Your task to perform on an android device: Go to privacy settings Image 0: 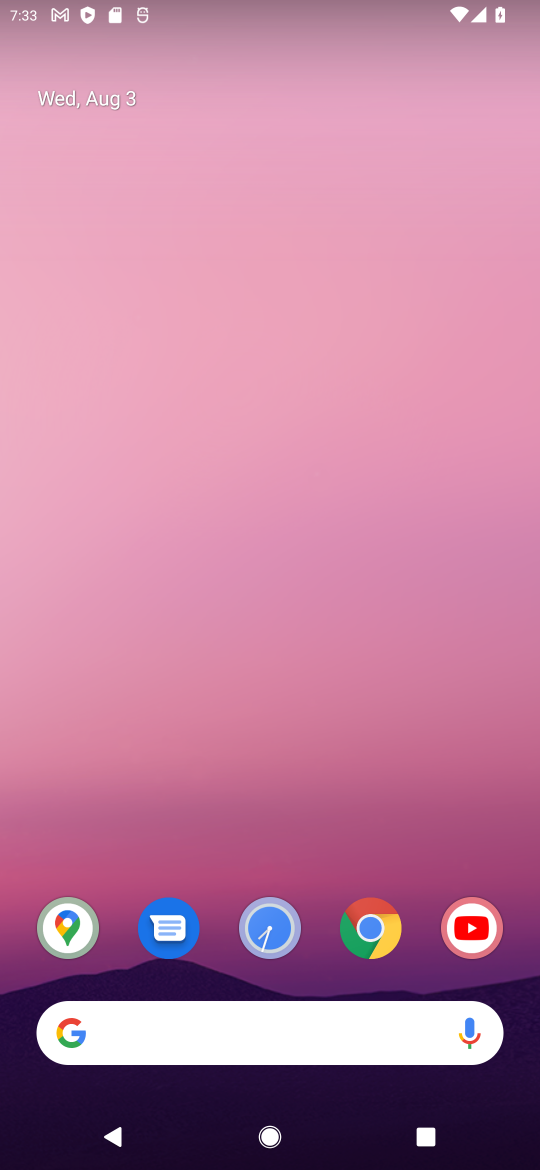
Step 0: drag from (394, 874) to (241, 286)
Your task to perform on an android device: Go to privacy settings Image 1: 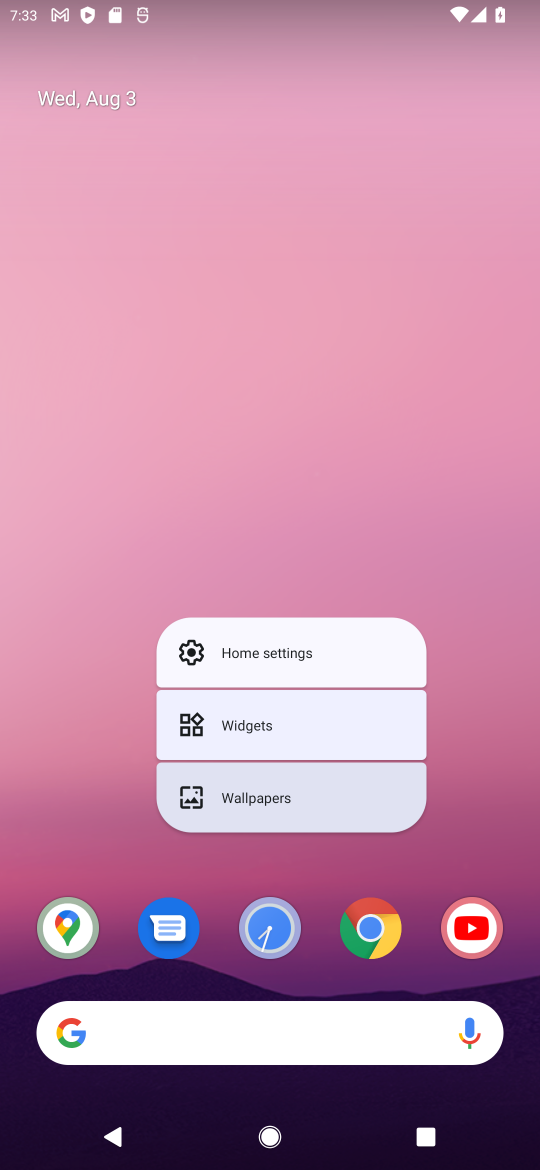
Step 1: drag from (501, 872) to (281, 141)
Your task to perform on an android device: Go to privacy settings Image 2: 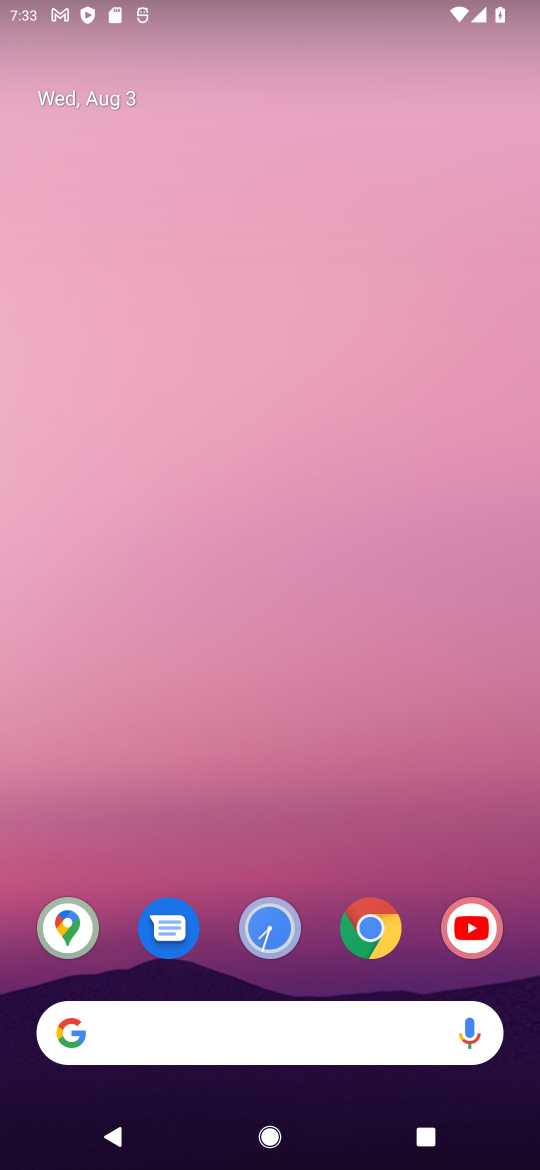
Step 2: drag from (432, 944) to (303, 199)
Your task to perform on an android device: Go to privacy settings Image 3: 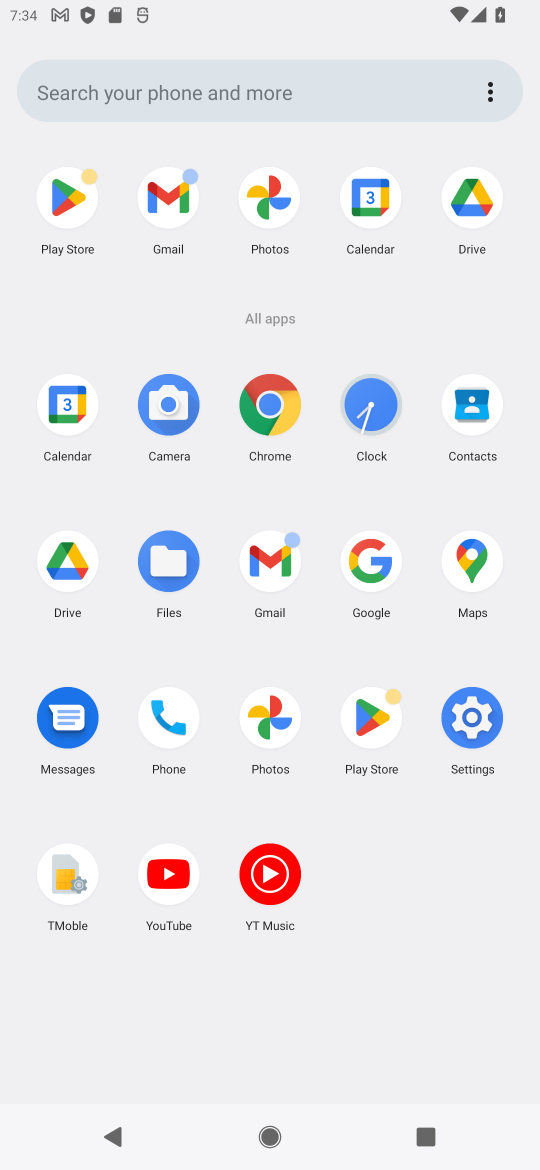
Step 3: click (481, 717)
Your task to perform on an android device: Go to privacy settings Image 4: 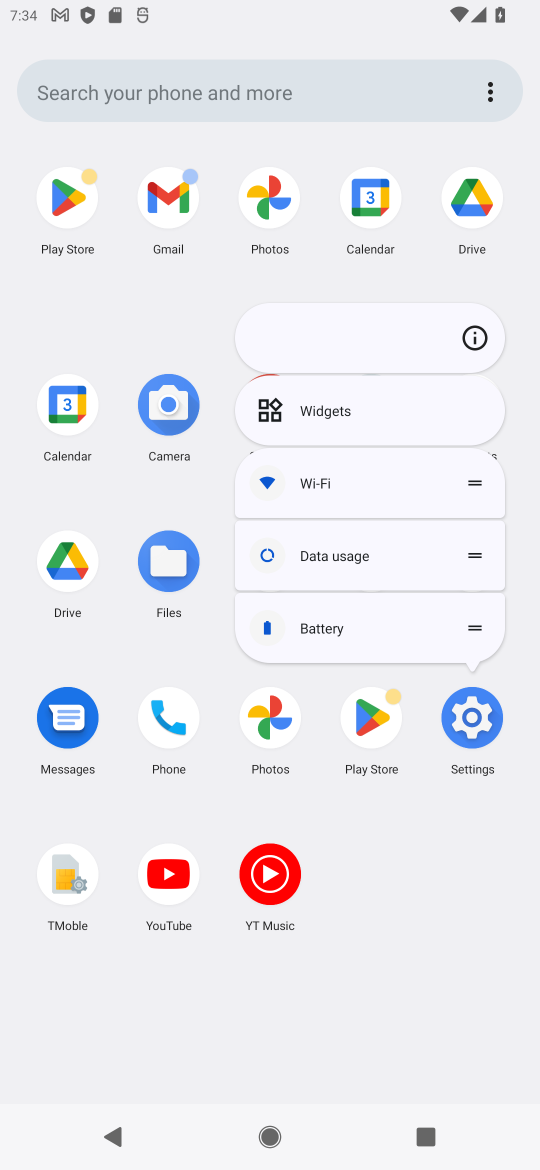
Step 4: click (477, 731)
Your task to perform on an android device: Go to privacy settings Image 5: 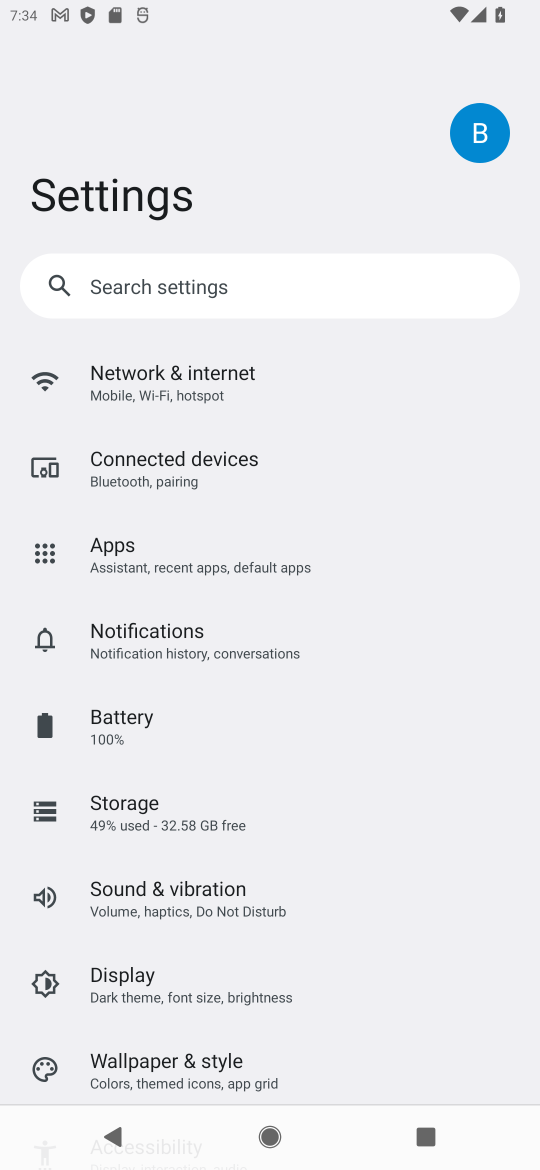
Step 5: drag from (291, 970) to (229, 256)
Your task to perform on an android device: Go to privacy settings Image 6: 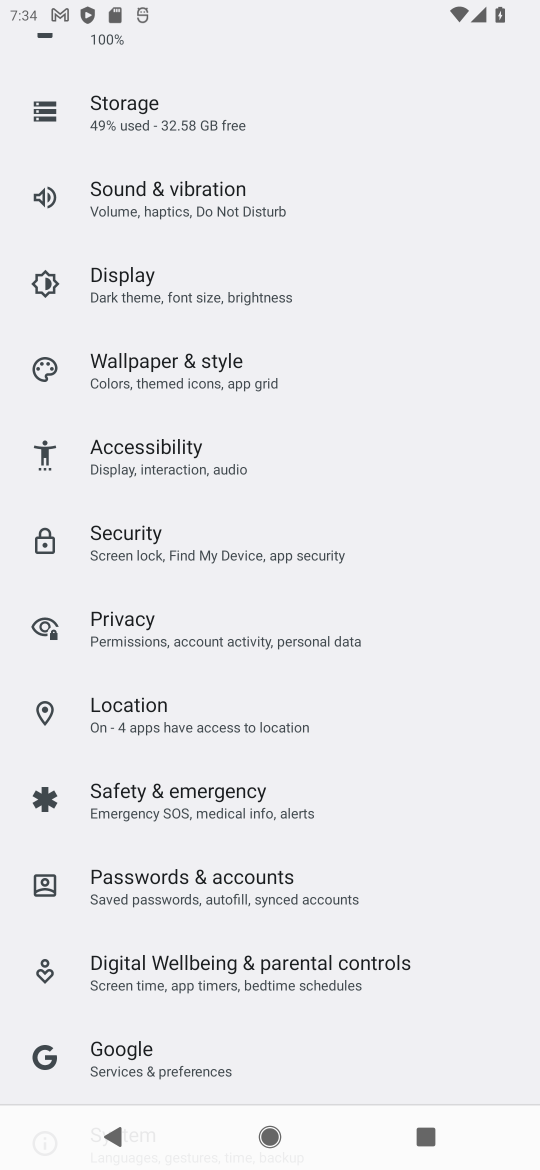
Step 6: click (263, 632)
Your task to perform on an android device: Go to privacy settings Image 7: 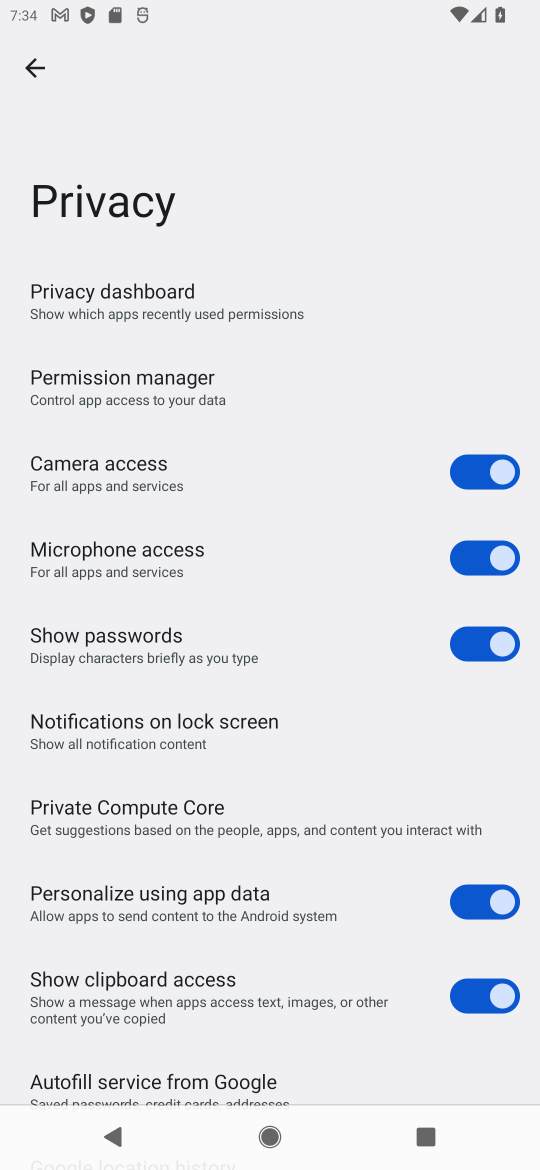
Step 7: task complete